Your task to perform on an android device: Open privacy settings Image 0: 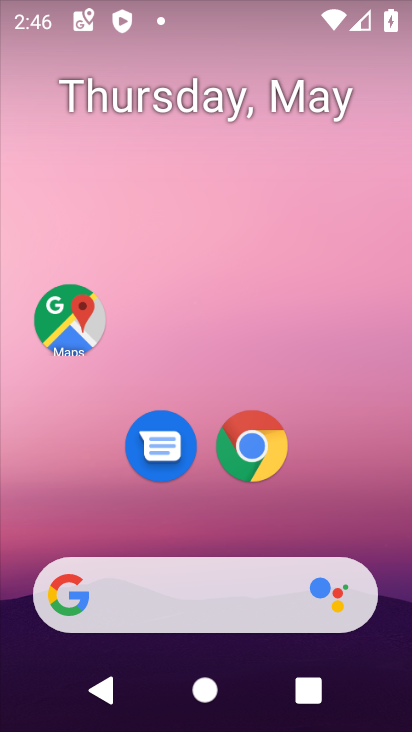
Step 0: drag from (293, 528) to (283, 59)
Your task to perform on an android device: Open privacy settings Image 1: 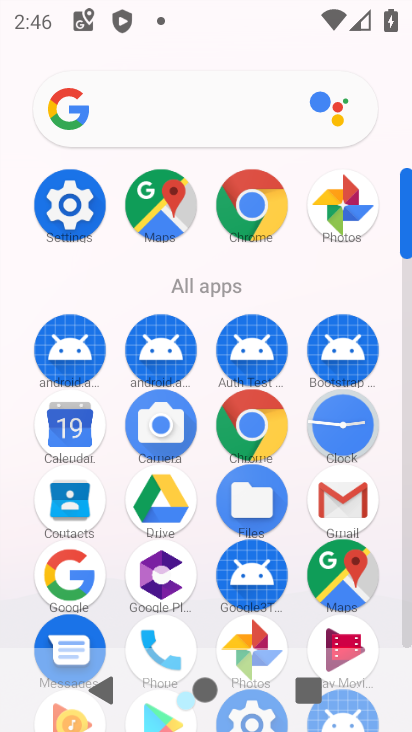
Step 1: click (63, 203)
Your task to perform on an android device: Open privacy settings Image 2: 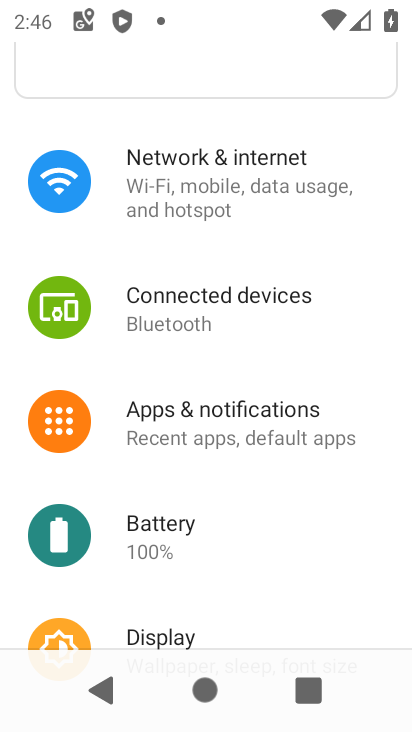
Step 2: drag from (241, 513) to (199, 312)
Your task to perform on an android device: Open privacy settings Image 3: 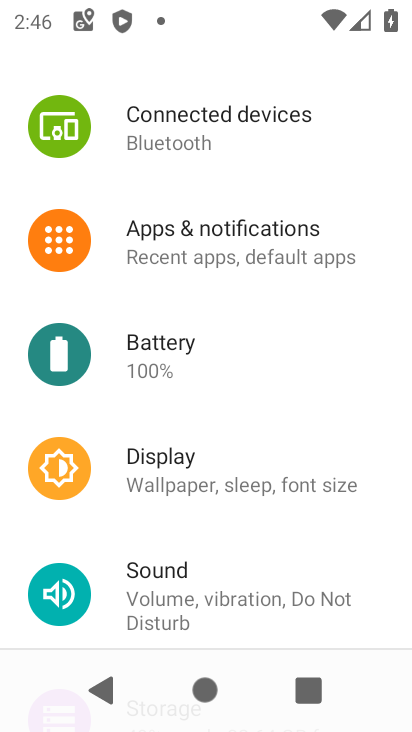
Step 3: drag from (197, 546) to (192, 307)
Your task to perform on an android device: Open privacy settings Image 4: 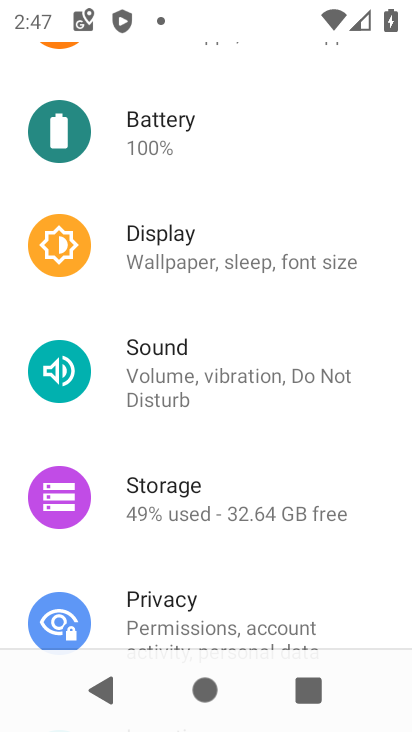
Step 4: drag from (218, 558) to (211, 361)
Your task to perform on an android device: Open privacy settings Image 5: 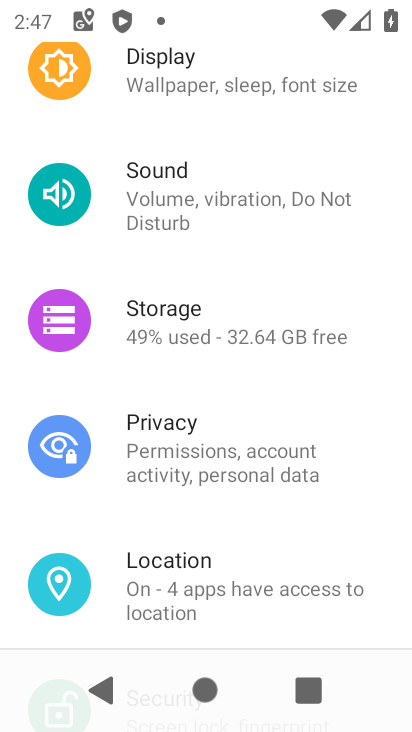
Step 5: click (213, 471)
Your task to perform on an android device: Open privacy settings Image 6: 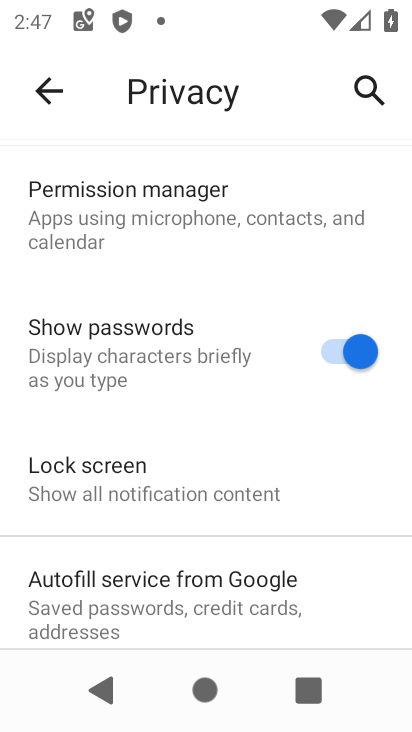
Step 6: task complete